Your task to perform on an android device: Open the calendar and show me this week's events? Image 0: 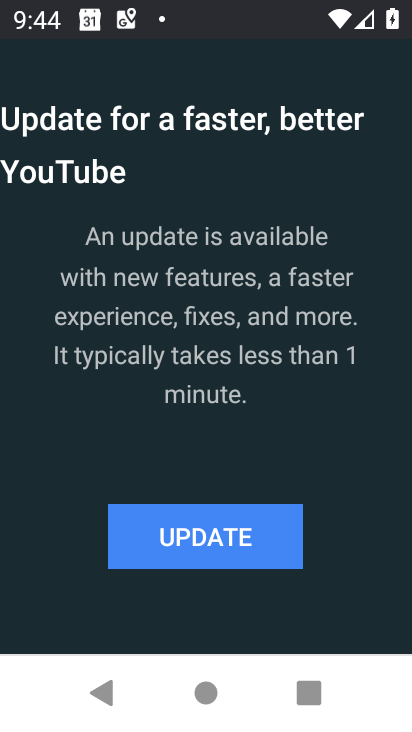
Step 0: press home button
Your task to perform on an android device: Open the calendar and show me this week's events? Image 1: 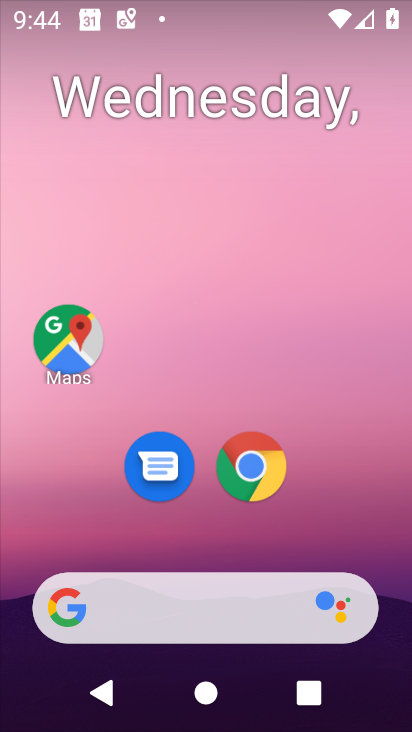
Step 1: drag from (321, 528) to (347, 129)
Your task to perform on an android device: Open the calendar and show me this week's events? Image 2: 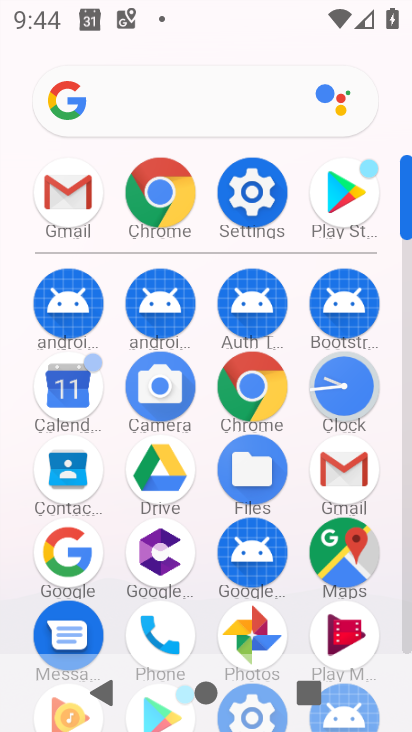
Step 2: click (60, 379)
Your task to perform on an android device: Open the calendar and show me this week's events? Image 3: 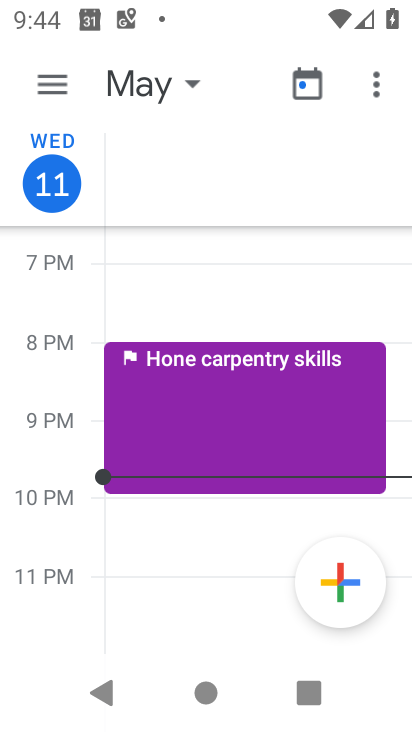
Step 3: click (53, 86)
Your task to perform on an android device: Open the calendar and show me this week's events? Image 4: 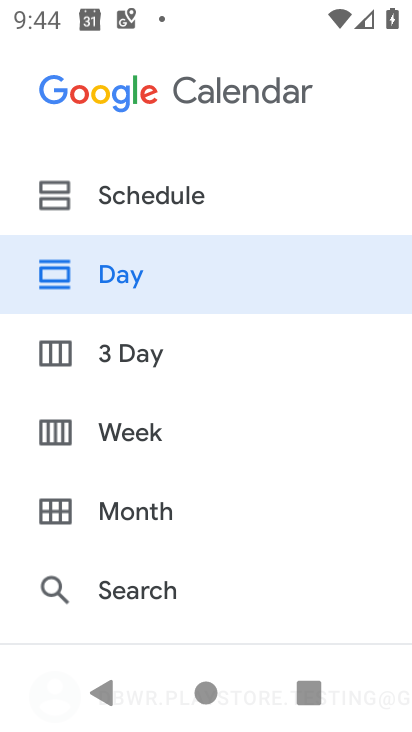
Step 4: click (149, 431)
Your task to perform on an android device: Open the calendar and show me this week's events? Image 5: 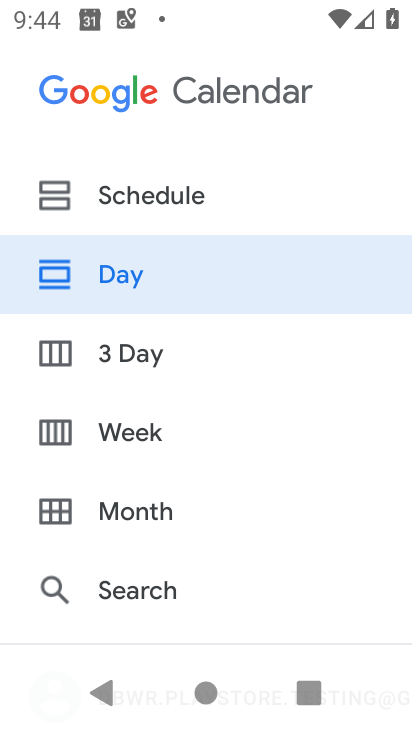
Step 5: click (94, 428)
Your task to perform on an android device: Open the calendar and show me this week's events? Image 6: 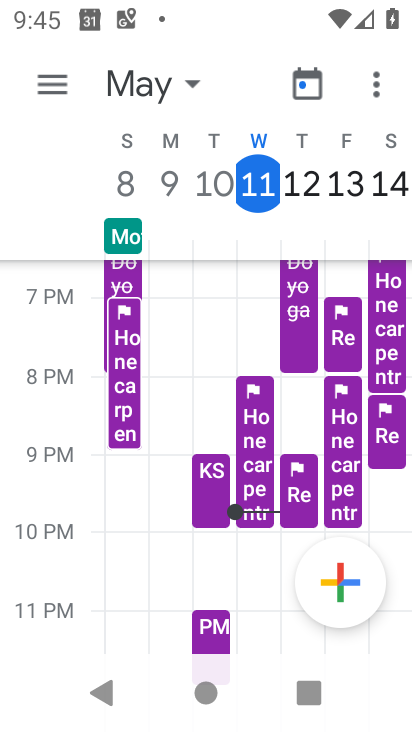
Step 6: task complete